Your task to perform on an android device: manage bookmarks in the chrome app Image 0: 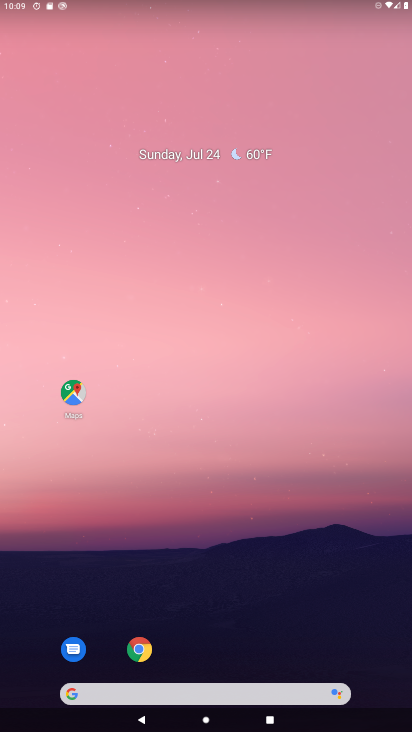
Step 0: drag from (299, 594) to (245, 99)
Your task to perform on an android device: manage bookmarks in the chrome app Image 1: 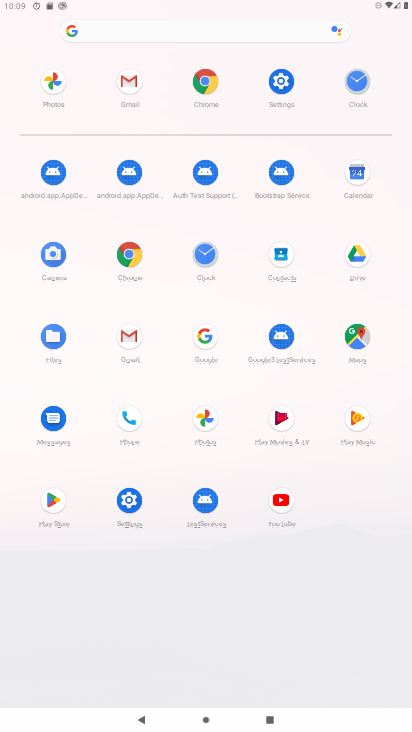
Step 1: click (128, 258)
Your task to perform on an android device: manage bookmarks in the chrome app Image 2: 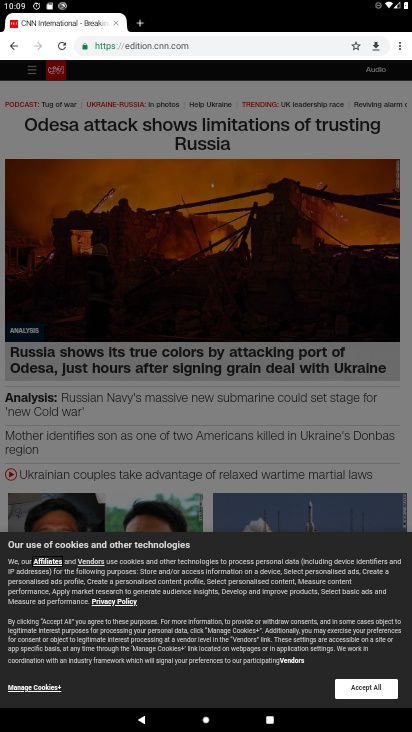
Step 2: drag from (408, 37) to (323, 129)
Your task to perform on an android device: manage bookmarks in the chrome app Image 3: 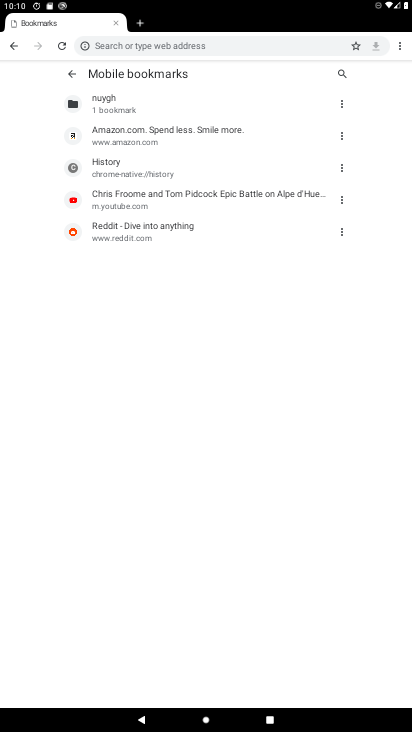
Step 3: click (344, 228)
Your task to perform on an android device: manage bookmarks in the chrome app Image 4: 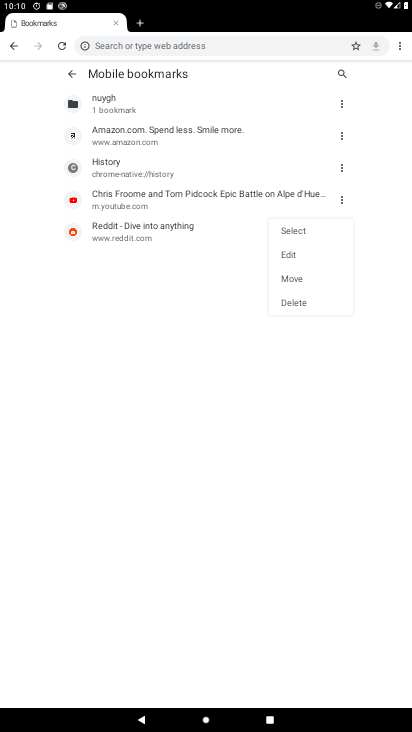
Step 4: click (298, 263)
Your task to perform on an android device: manage bookmarks in the chrome app Image 5: 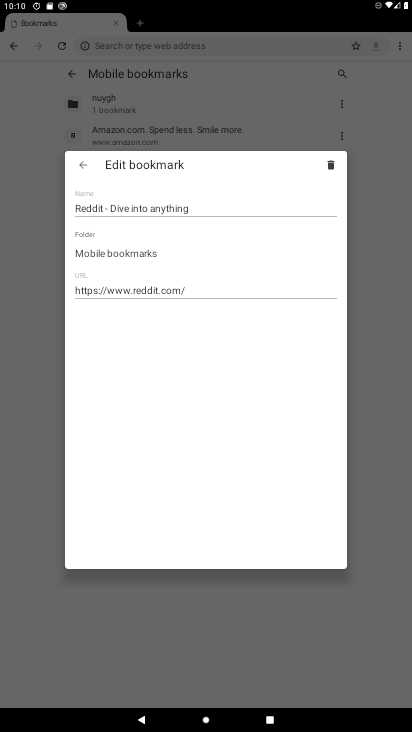
Step 5: click (269, 206)
Your task to perform on an android device: manage bookmarks in the chrome app Image 6: 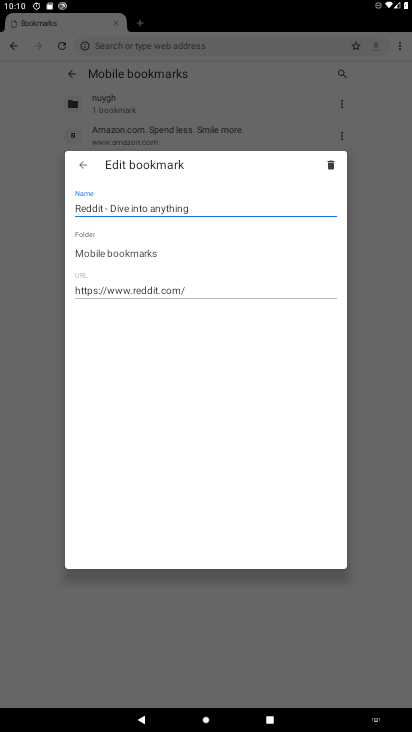
Step 6: type "gop"
Your task to perform on an android device: manage bookmarks in the chrome app Image 7: 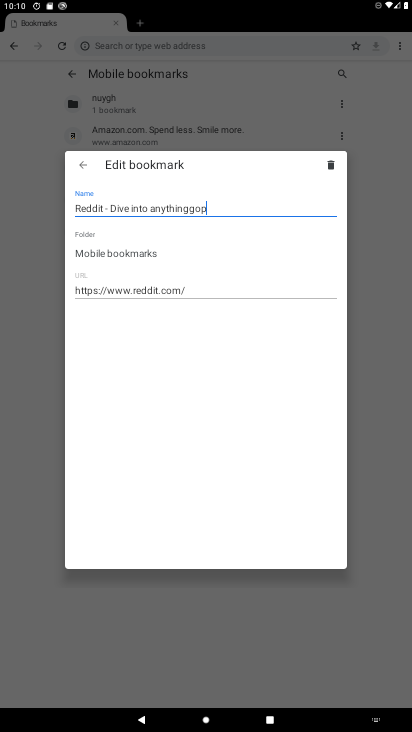
Step 7: click (84, 166)
Your task to perform on an android device: manage bookmarks in the chrome app Image 8: 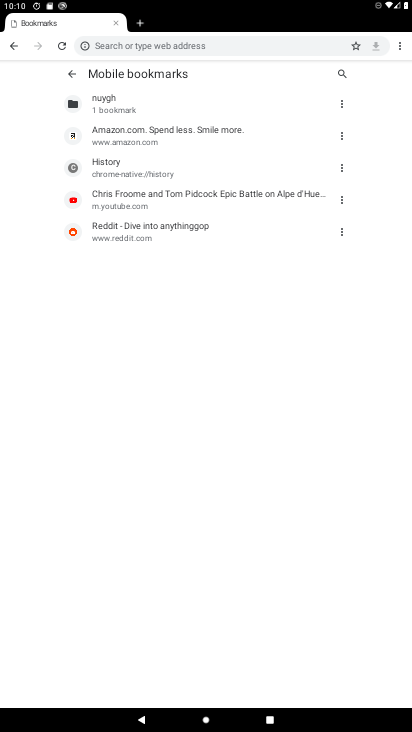
Step 8: task complete